Your task to perform on an android device: Open calendar and show me the first week of next month Image 0: 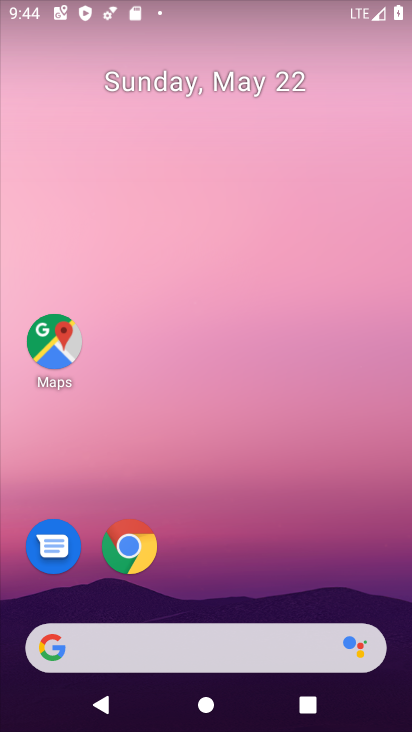
Step 0: drag from (188, 603) to (265, 2)
Your task to perform on an android device: Open calendar and show me the first week of next month Image 1: 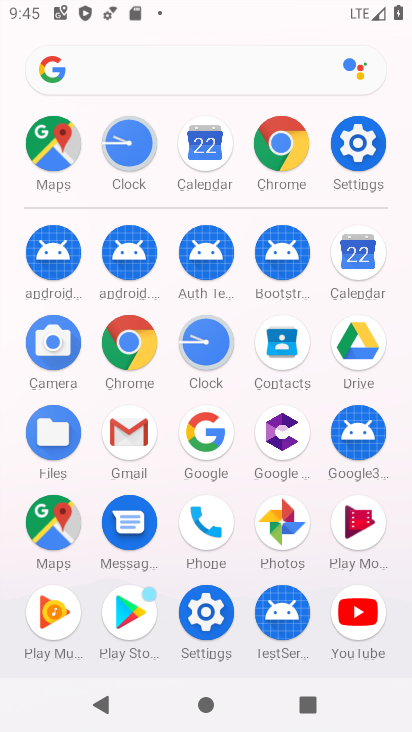
Step 1: click (356, 249)
Your task to perform on an android device: Open calendar and show me the first week of next month Image 2: 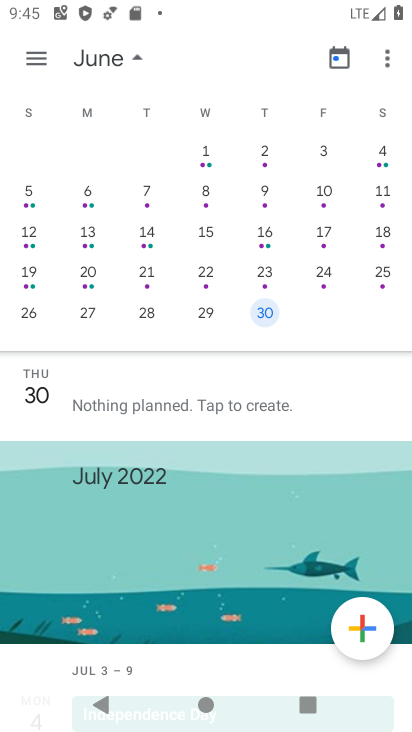
Step 2: click (255, 148)
Your task to perform on an android device: Open calendar and show me the first week of next month Image 3: 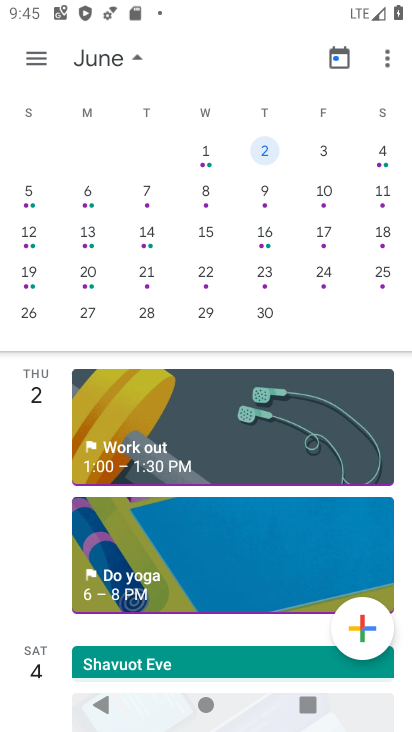
Step 3: task complete